Your task to perform on an android device: turn off smart reply in the gmail app Image 0: 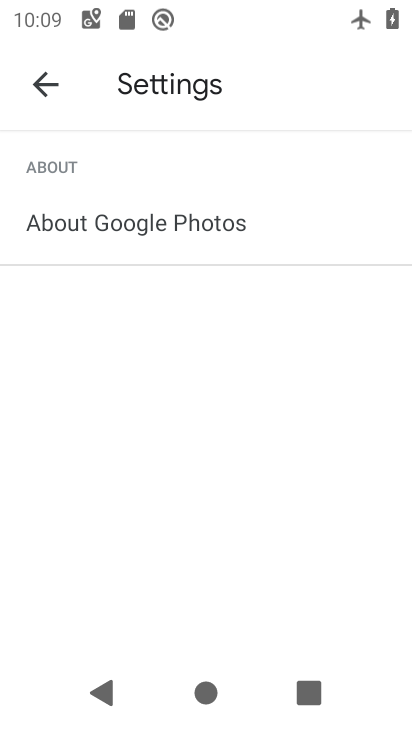
Step 0: press home button
Your task to perform on an android device: turn off smart reply in the gmail app Image 1: 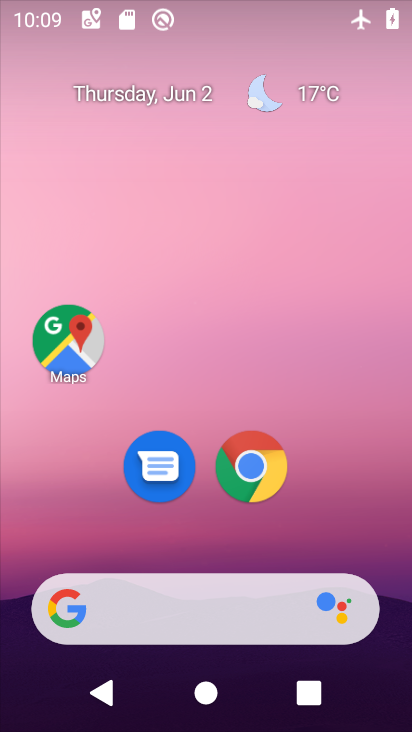
Step 1: drag from (183, 547) to (244, 201)
Your task to perform on an android device: turn off smart reply in the gmail app Image 2: 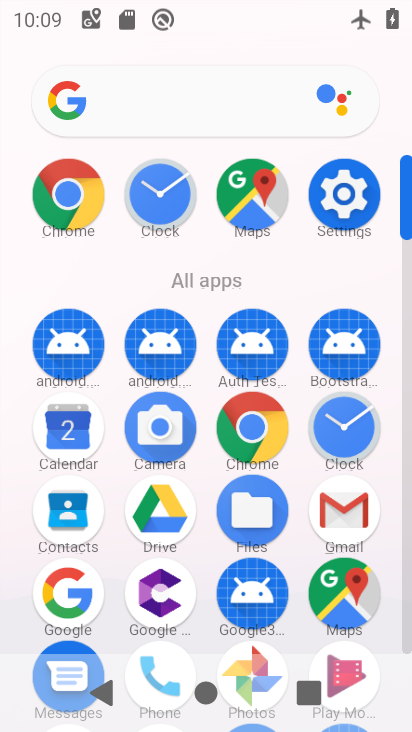
Step 2: click (331, 192)
Your task to perform on an android device: turn off smart reply in the gmail app Image 3: 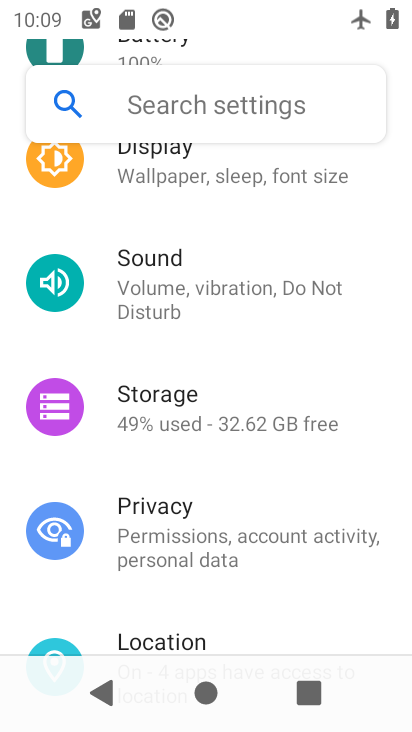
Step 3: press home button
Your task to perform on an android device: turn off smart reply in the gmail app Image 4: 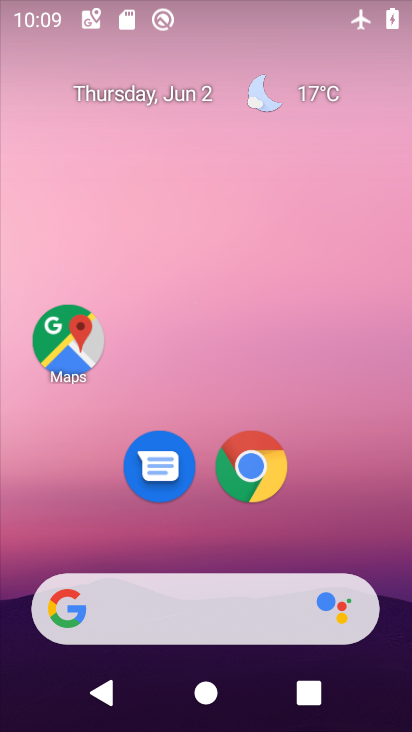
Step 4: drag from (242, 412) to (246, 254)
Your task to perform on an android device: turn off smart reply in the gmail app Image 5: 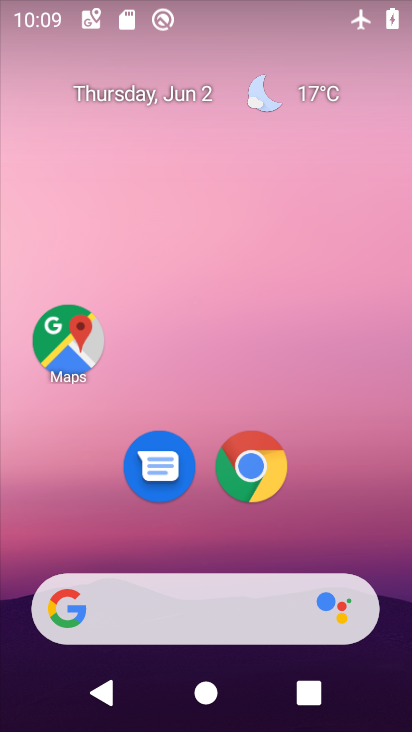
Step 5: drag from (209, 511) to (223, 175)
Your task to perform on an android device: turn off smart reply in the gmail app Image 6: 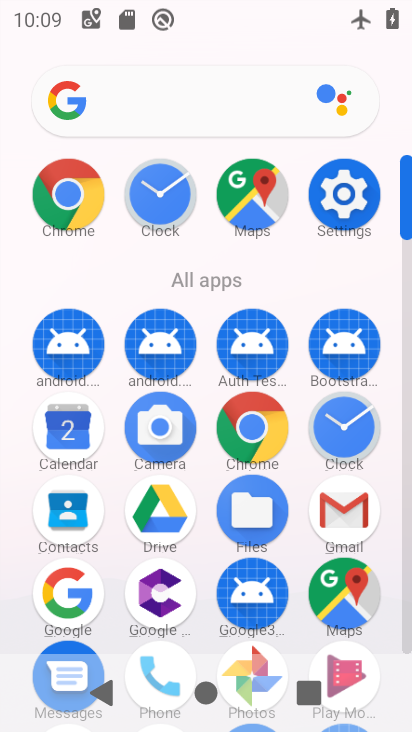
Step 6: click (331, 503)
Your task to perform on an android device: turn off smart reply in the gmail app Image 7: 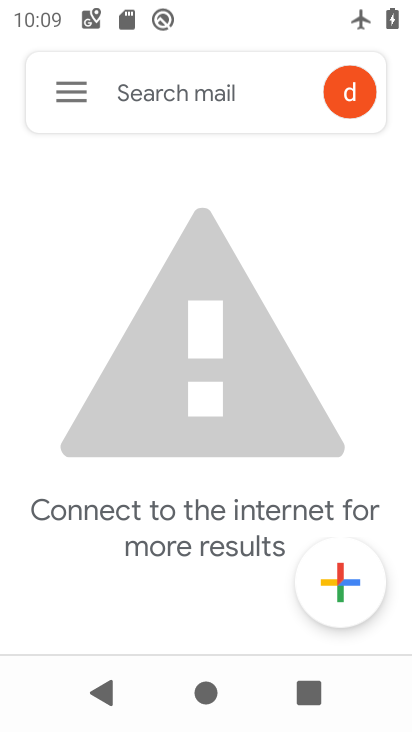
Step 7: click (75, 76)
Your task to perform on an android device: turn off smart reply in the gmail app Image 8: 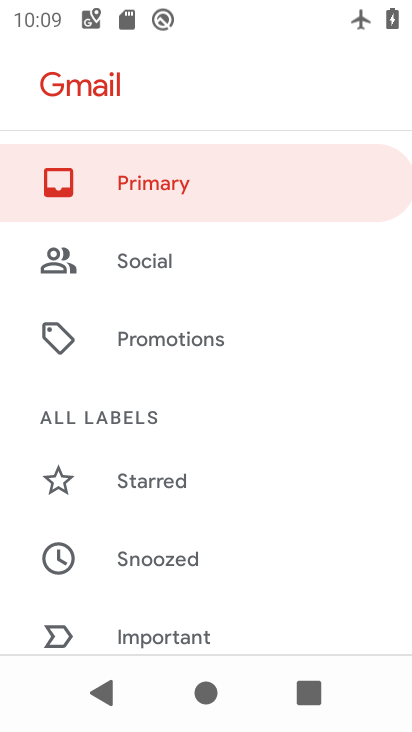
Step 8: drag from (136, 572) to (198, 208)
Your task to perform on an android device: turn off smart reply in the gmail app Image 9: 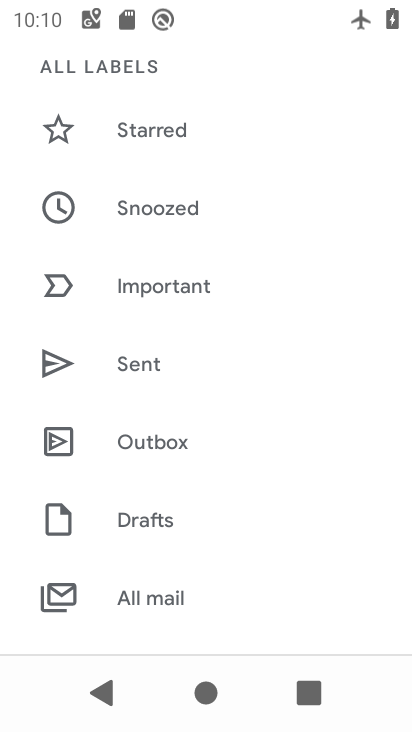
Step 9: drag from (166, 524) to (190, 238)
Your task to perform on an android device: turn off smart reply in the gmail app Image 10: 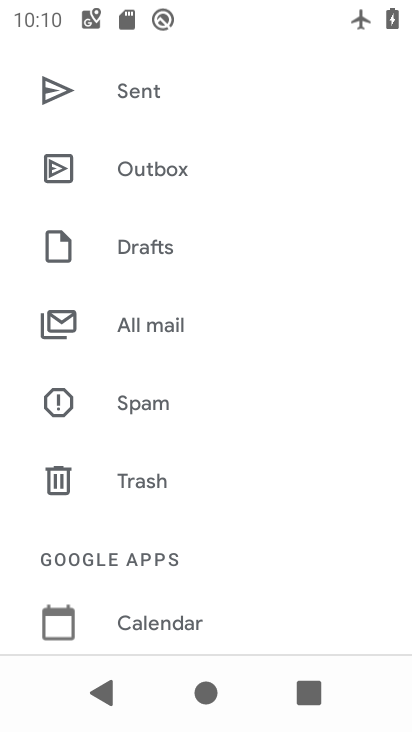
Step 10: drag from (180, 558) to (208, 186)
Your task to perform on an android device: turn off smart reply in the gmail app Image 11: 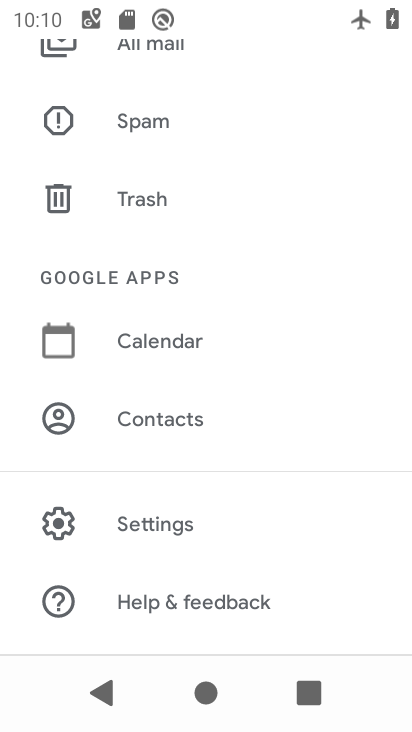
Step 11: click (145, 542)
Your task to perform on an android device: turn off smart reply in the gmail app Image 12: 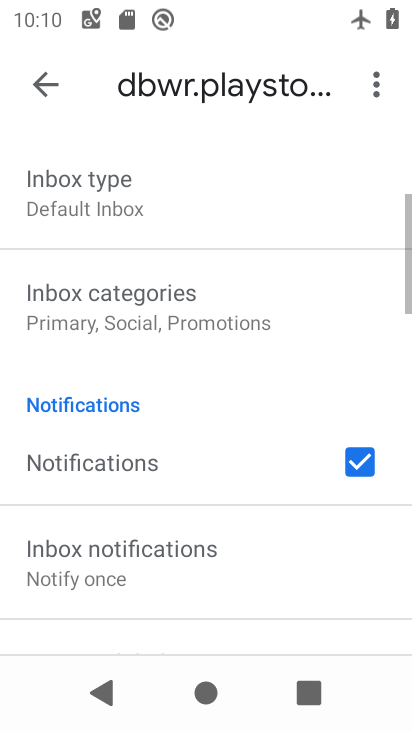
Step 12: drag from (180, 571) to (212, 268)
Your task to perform on an android device: turn off smart reply in the gmail app Image 13: 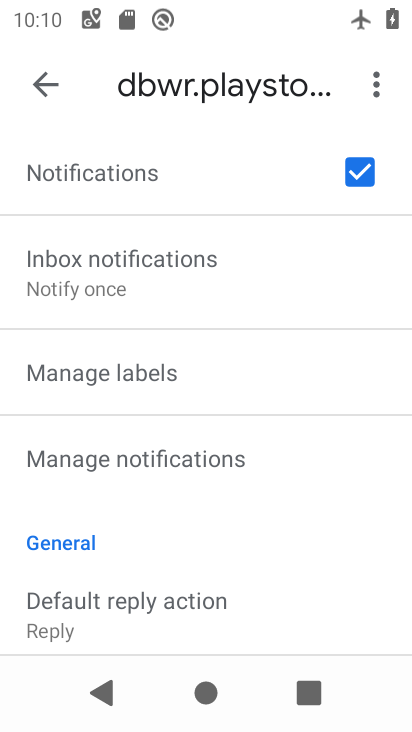
Step 13: drag from (150, 553) to (219, 211)
Your task to perform on an android device: turn off smart reply in the gmail app Image 14: 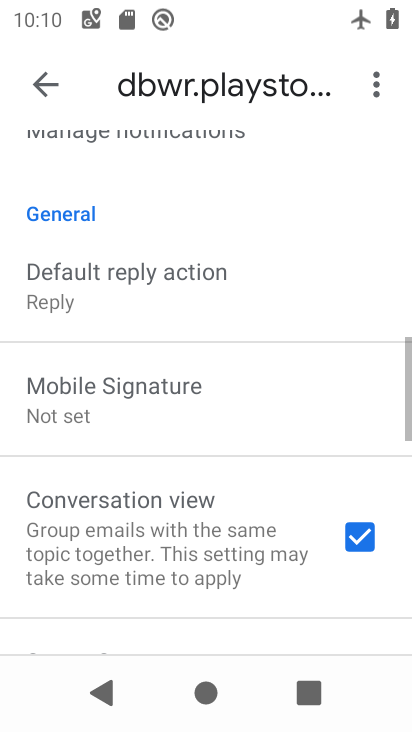
Step 14: drag from (218, 599) to (240, 251)
Your task to perform on an android device: turn off smart reply in the gmail app Image 15: 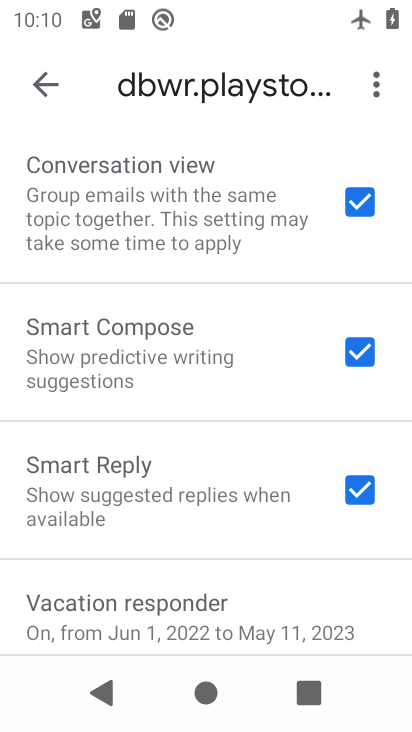
Step 15: click (367, 488)
Your task to perform on an android device: turn off smart reply in the gmail app Image 16: 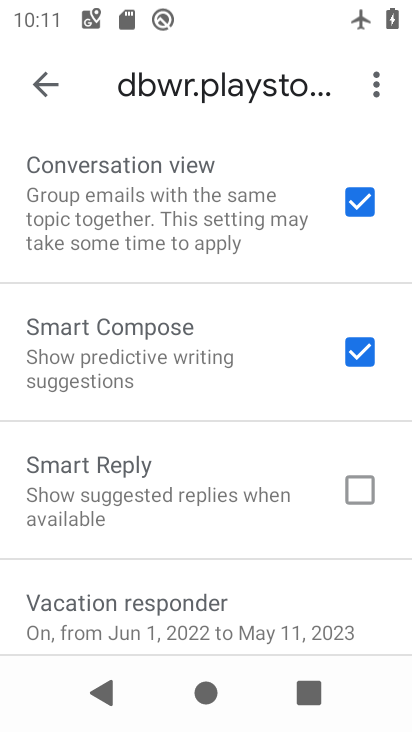
Step 16: task complete